Your task to perform on an android device: open app "Instagram" (install if not already installed) Image 0: 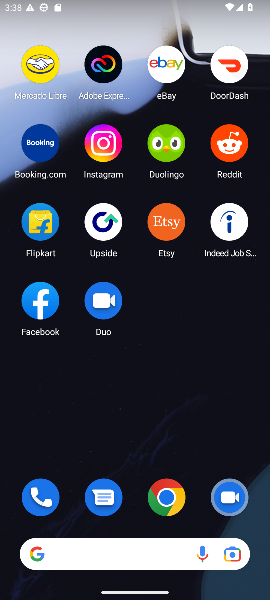
Step 0: drag from (135, 448) to (169, 40)
Your task to perform on an android device: open app "Instagram" (install if not already installed) Image 1: 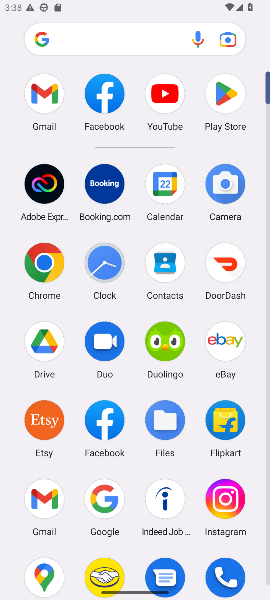
Step 1: click (220, 104)
Your task to perform on an android device: open app "Instagram" (install if not already installed) Image 2: 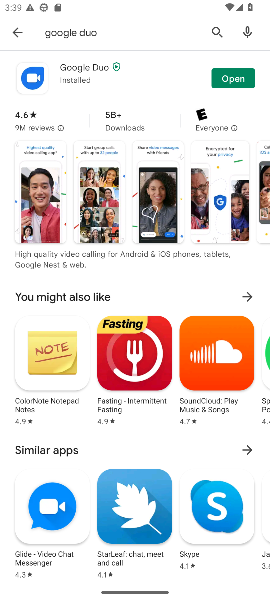
Step 2: click (210, 28)
Your task to perform on an android device: open app "Instagram" (install if not already installed) Image 3: 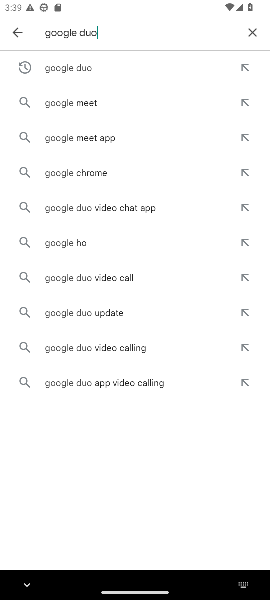
Step 3: click (258, 30)
Your task to perform on an android device: open app "Instagram" (install if not already installed) Image 4: 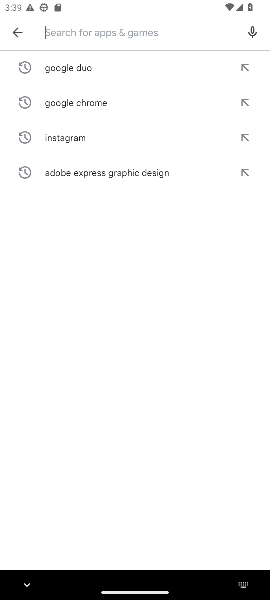
Step 4: type "Instagram"
Your task to perform on an android device: open app "Instagram" (install if not already installed) Image 5: 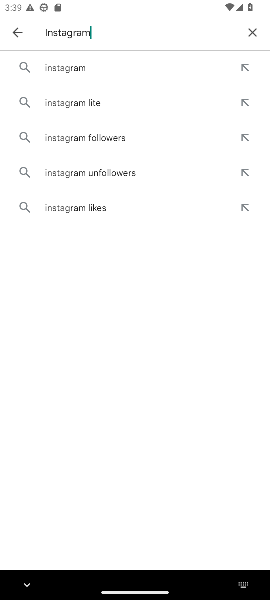
Step 5: type ""
Your task to perform on an android device: open app "Instagram" (install if not already installed) Image 6: 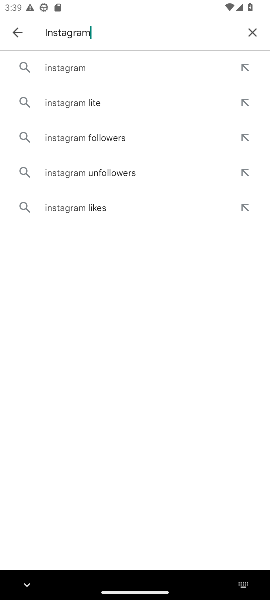
Step 6: click (58, 72)
Your task to perform on an android device: open app "Instagram" (install if not already installed) Image 7: 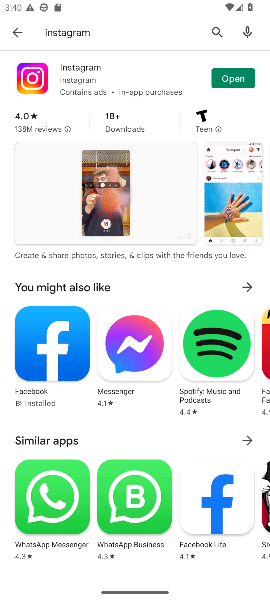
Step 7: click (235, 78)
Your task to perform on an android device: open app "Instagram" (install if not already installed) Image 8: 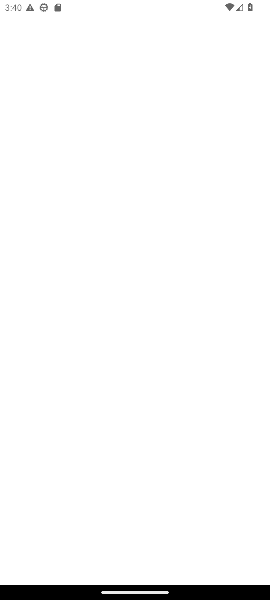
Step 8: task complete